Your task to perform on an android device: change keyboard looks Image 0: 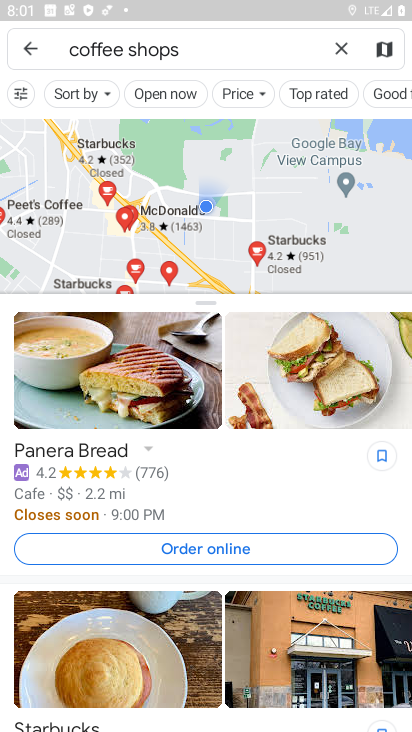
Step 0: press home button
Your task to perform on an android device: change keyboard looks Image 1: 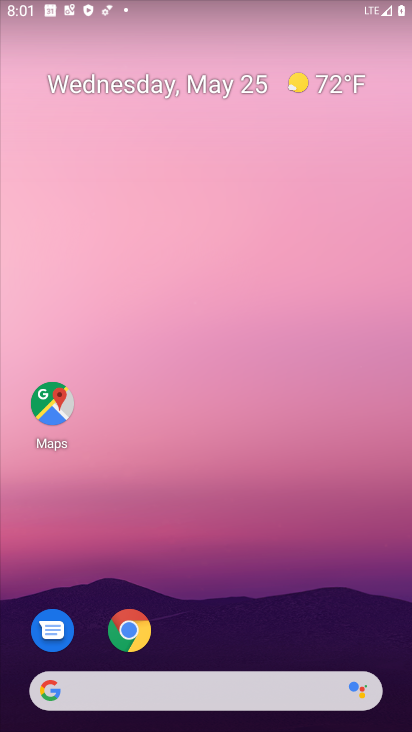
Step 1: drag from (213, 637) to (266, 199)
Your task to perform on an android device: change keyboard looks Image 2: 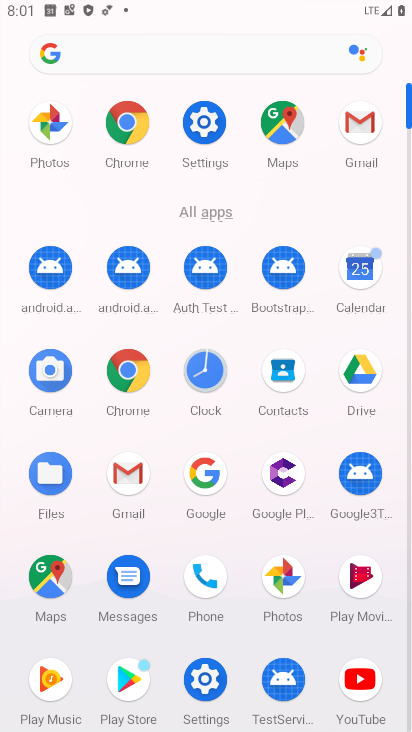
Step 2: click (200, 131)
Your task to perform on an android device: change keyboard looks Image 3: 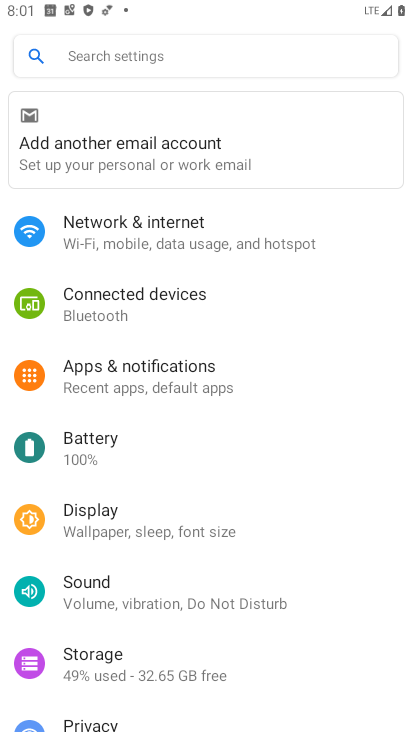
Step 3: drag from (199, 611) to (192, 252)
Your task to perform on an android device: change keyboard looks Image 4: 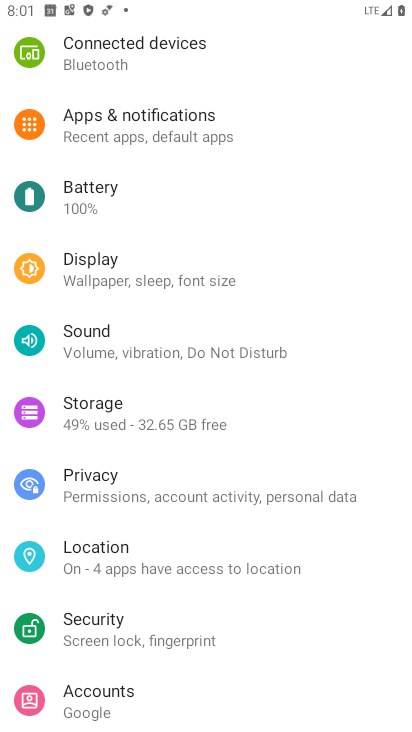
Step 4: drag from (198, 653) to (187, 259)
Your task to perform on an android device: change keyboard looks Image 5: 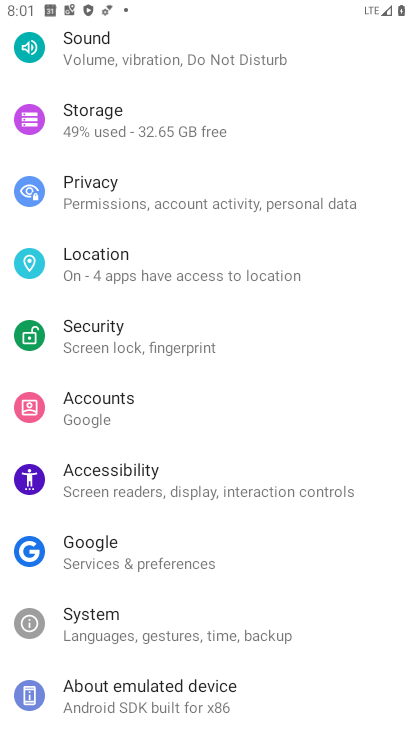
Step 5: click (157, 630)
Your task to perform on an android device: change keyboard looks Image 6: 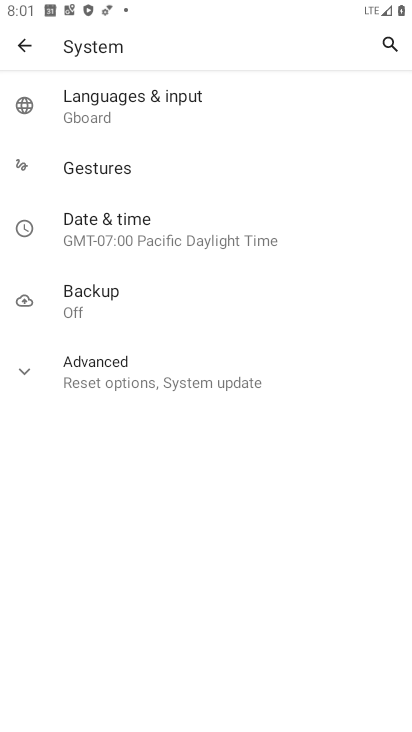
Step 6: click (144, 372)
Your task to perform on an android device: change keyboard looks Image 7: 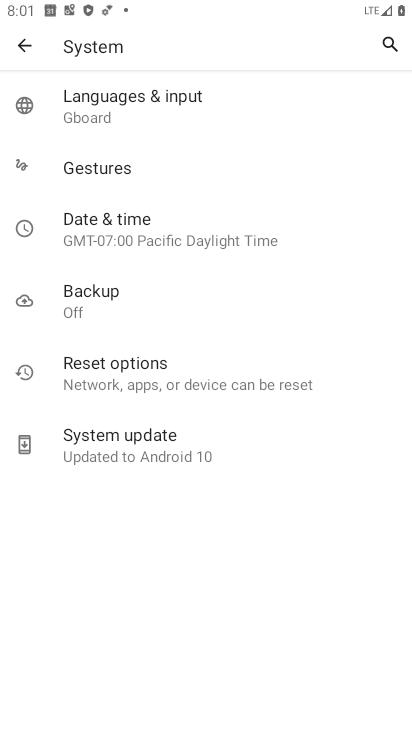
Step 7: click (107, 110)
Your task to perform on an android device: change keyboard looks Image 8: 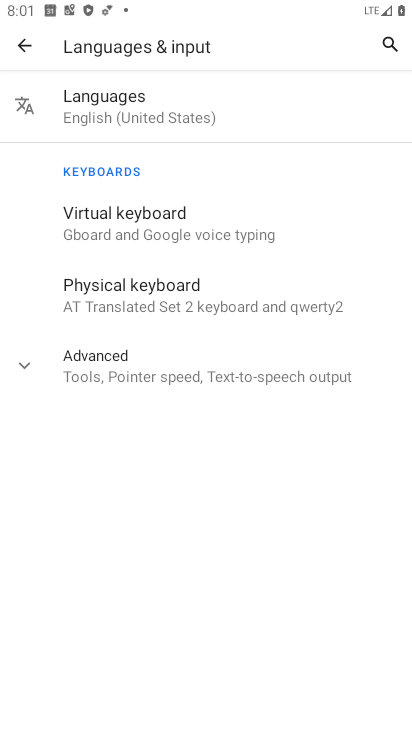
Step 8: click (133, 216)
Your task to perform on an android device: change keyboard looks Image 9: 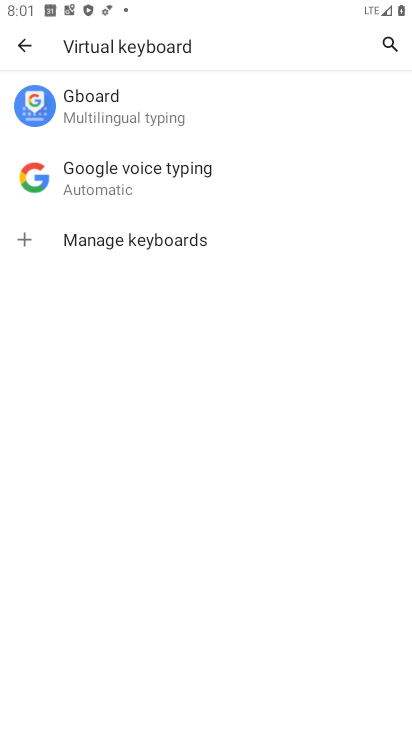
Step 9: click (118, 115)
Your task to perform on an android device: change keyboard looks Image 10: 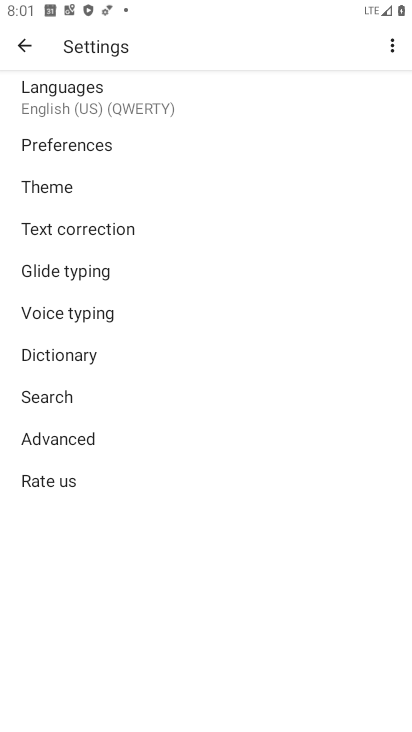
Step 10: click (80, 185)
Your task to perform on an android device: change keyboard looks Image 11: 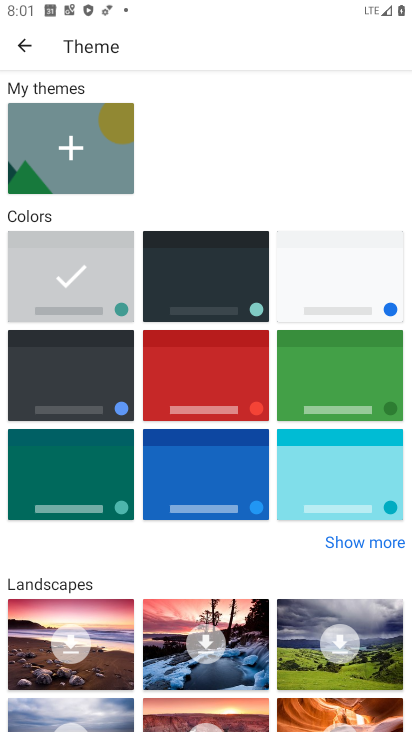
Step 11: click (235, 272)
Your task to perform on an android device: change keyboard looks Image 12: 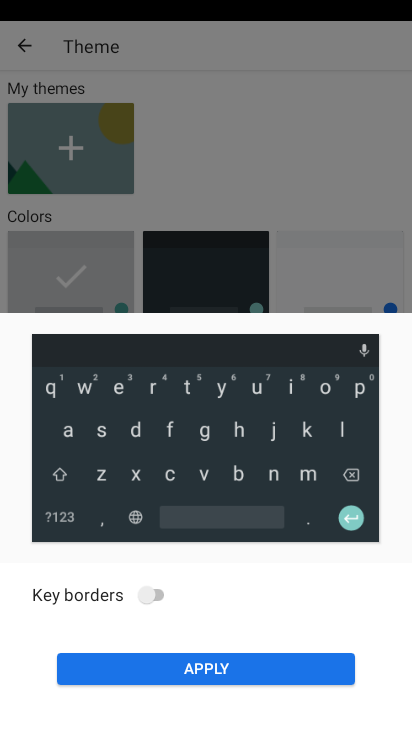
Step 12: click (188, 662)
Your task to perform on an android device: change keyboard looks Image 13: 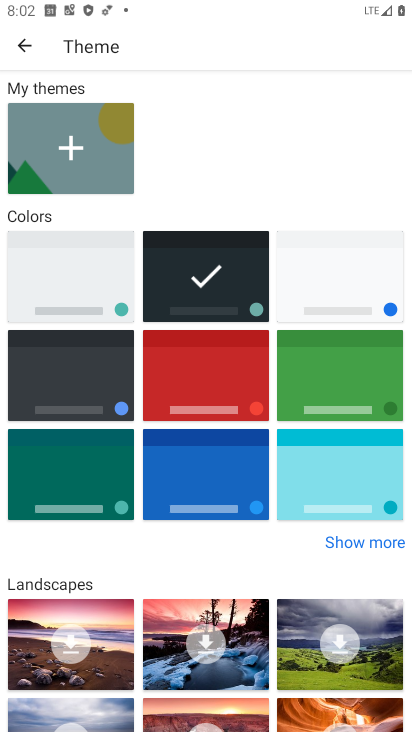
Step 13: task complete